Your task to perform on an android device: turn notification dots off Image 0: 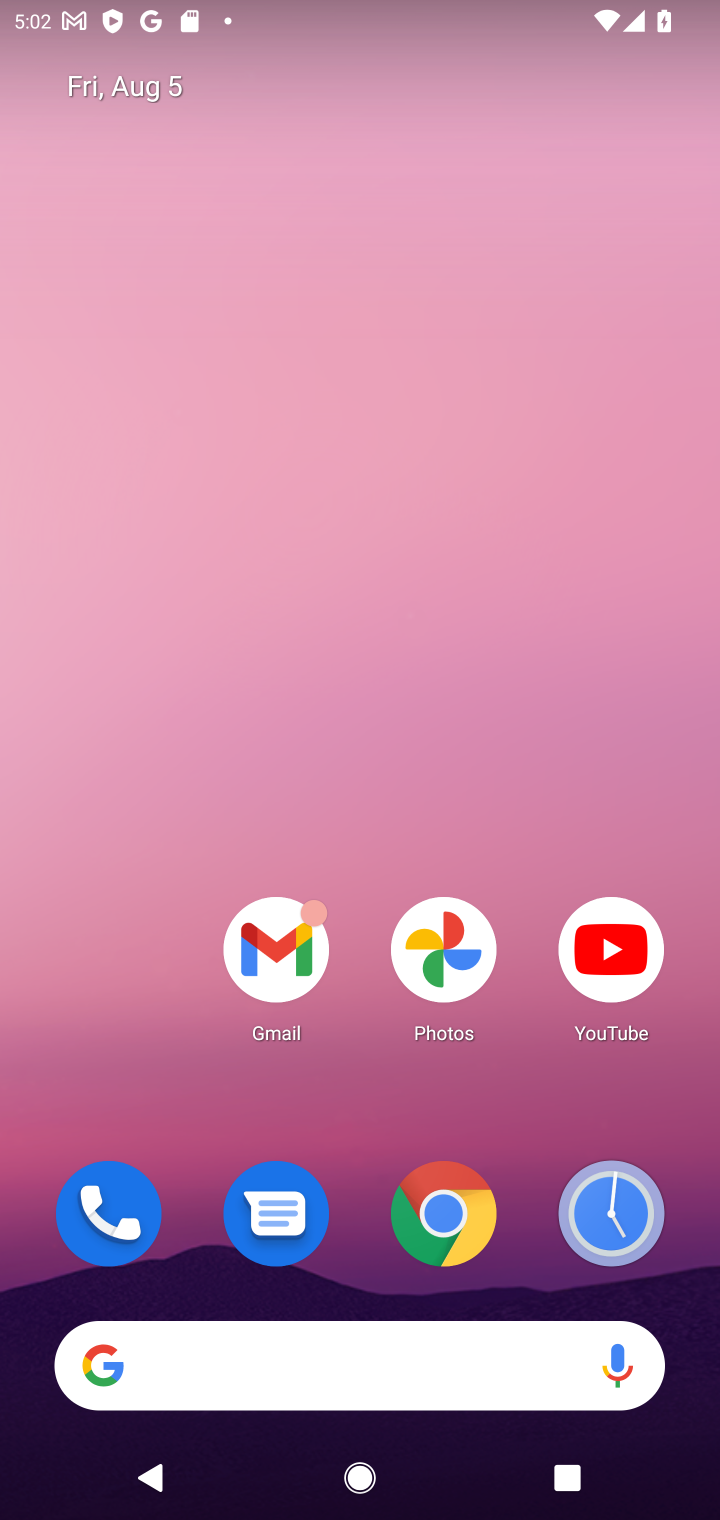
Step 0: drag from (354, 1124) to (340, 356)
Your task to perform on an android device: turn notification dots off Image 1: 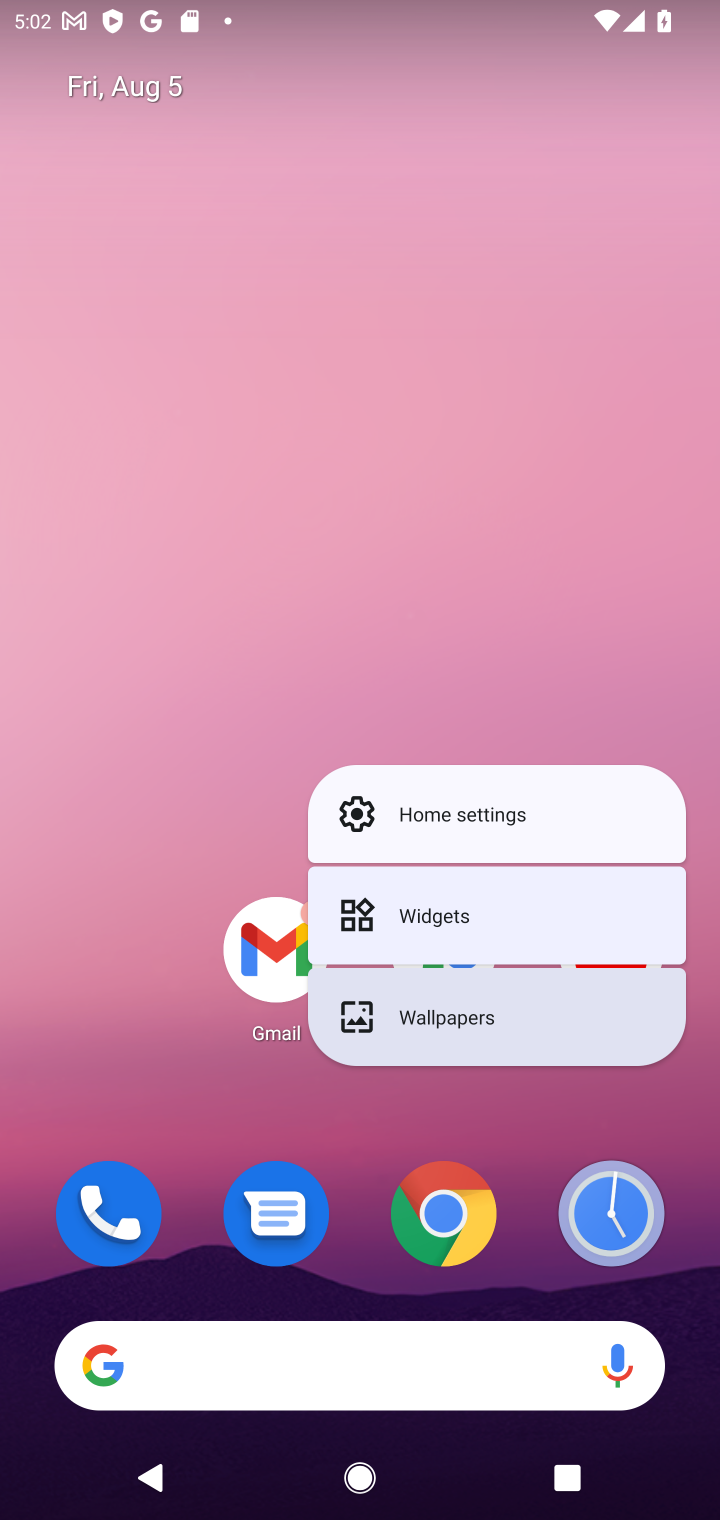
Step 1: click (360, 1285)
Your task to perform on an android device: turn notification dots off Image 2: 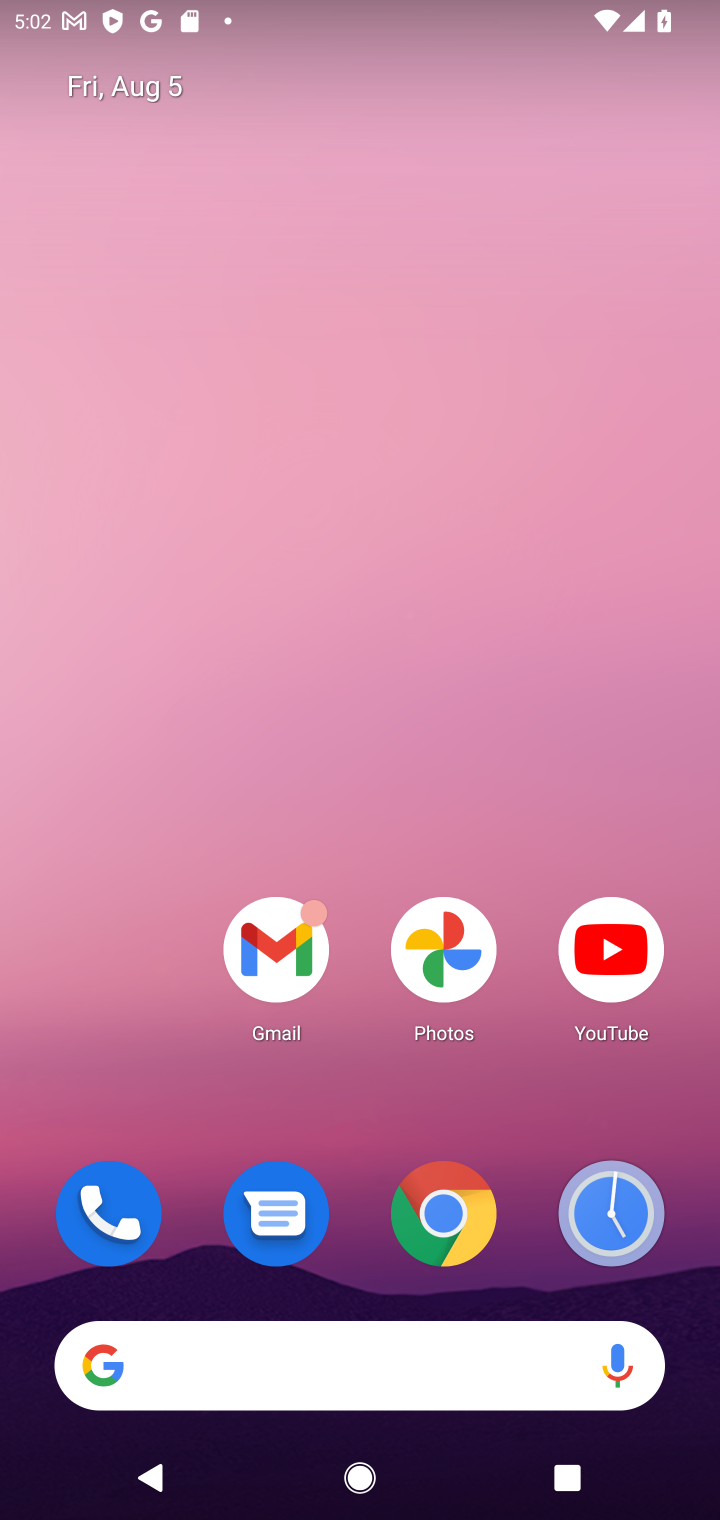
Step 2: drag from (360, 1285) to (435, 242)
Your task to perform on an android device: turn notification dots off Image 3: 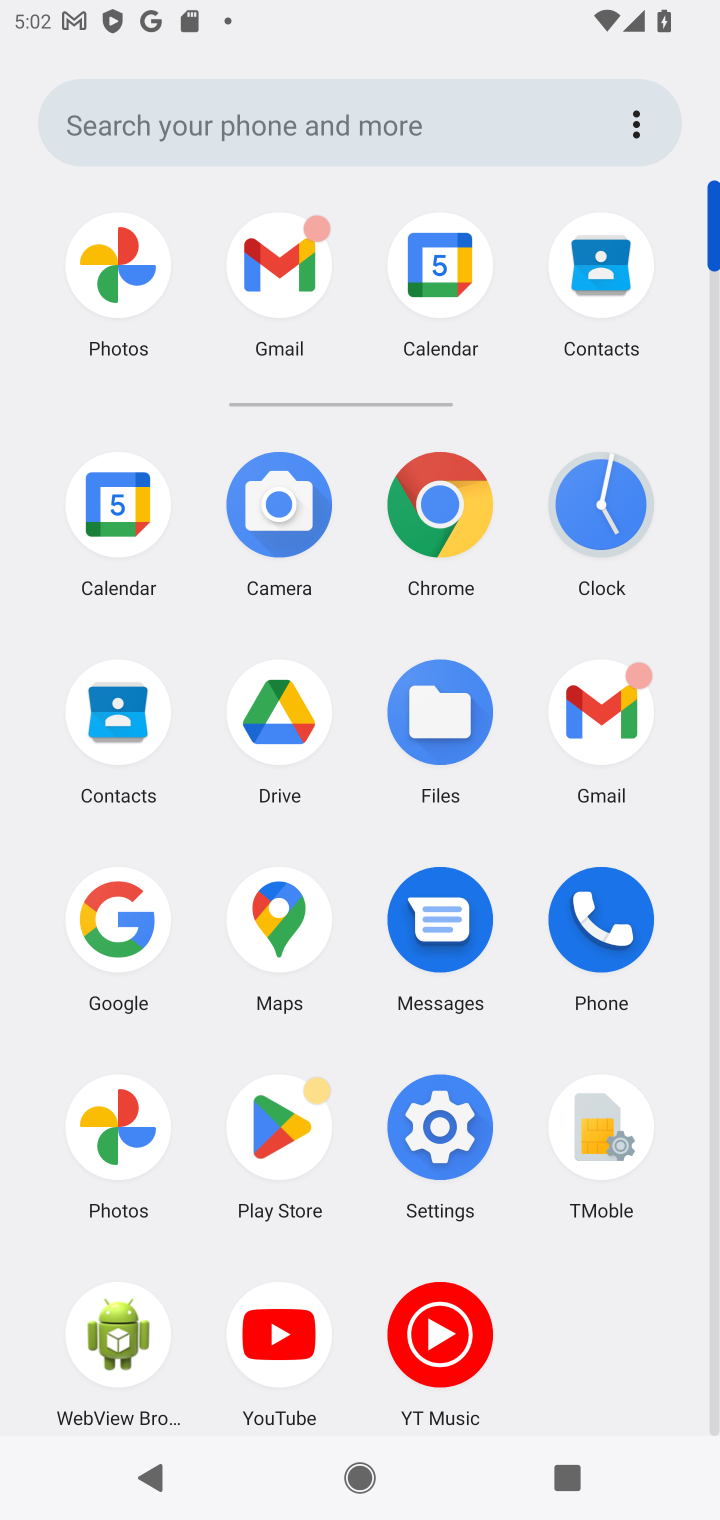
Step 3: click (467, 1183)
Your task to perform on an android device: turn notification dots off Image 4: 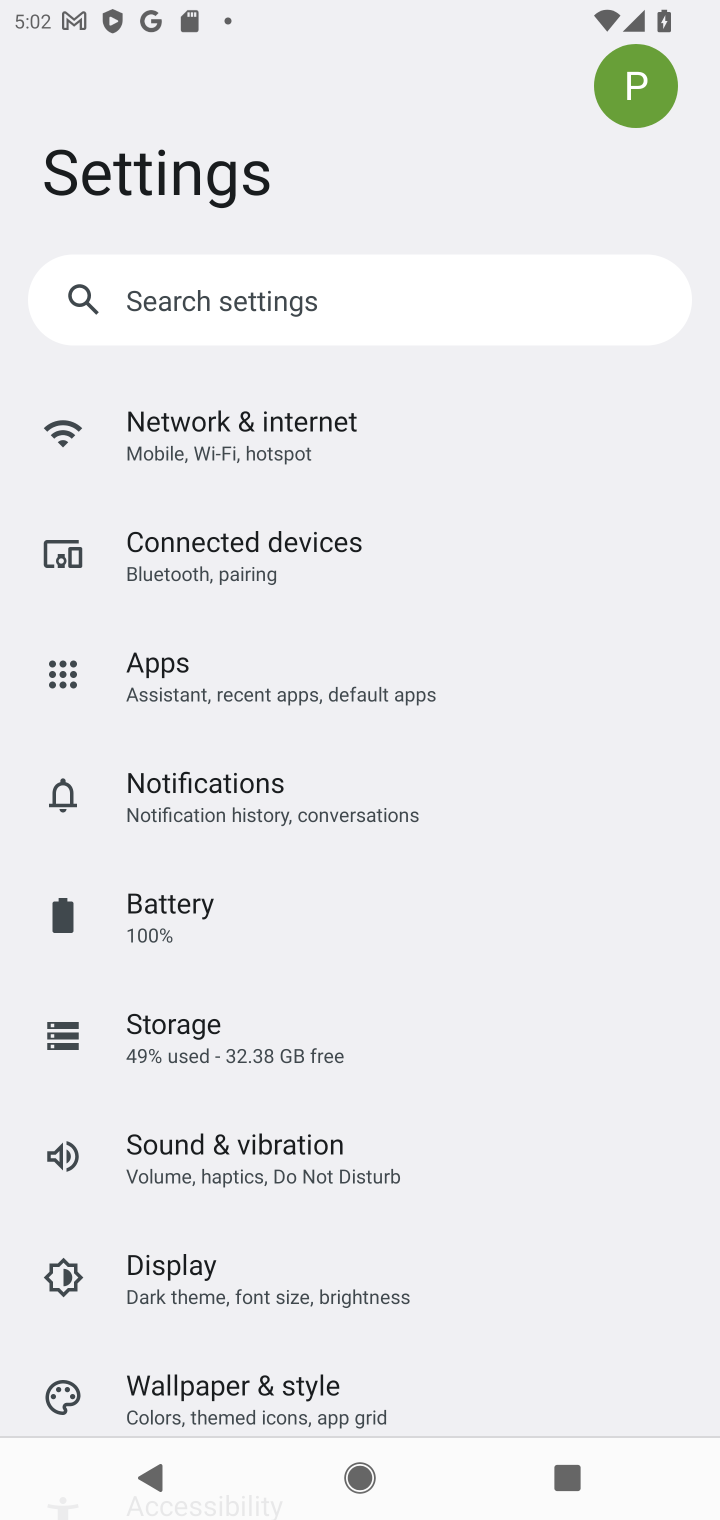
Step 4: click (283, 768)
Your task to perform on an android device: turn notification dots off Image 5: 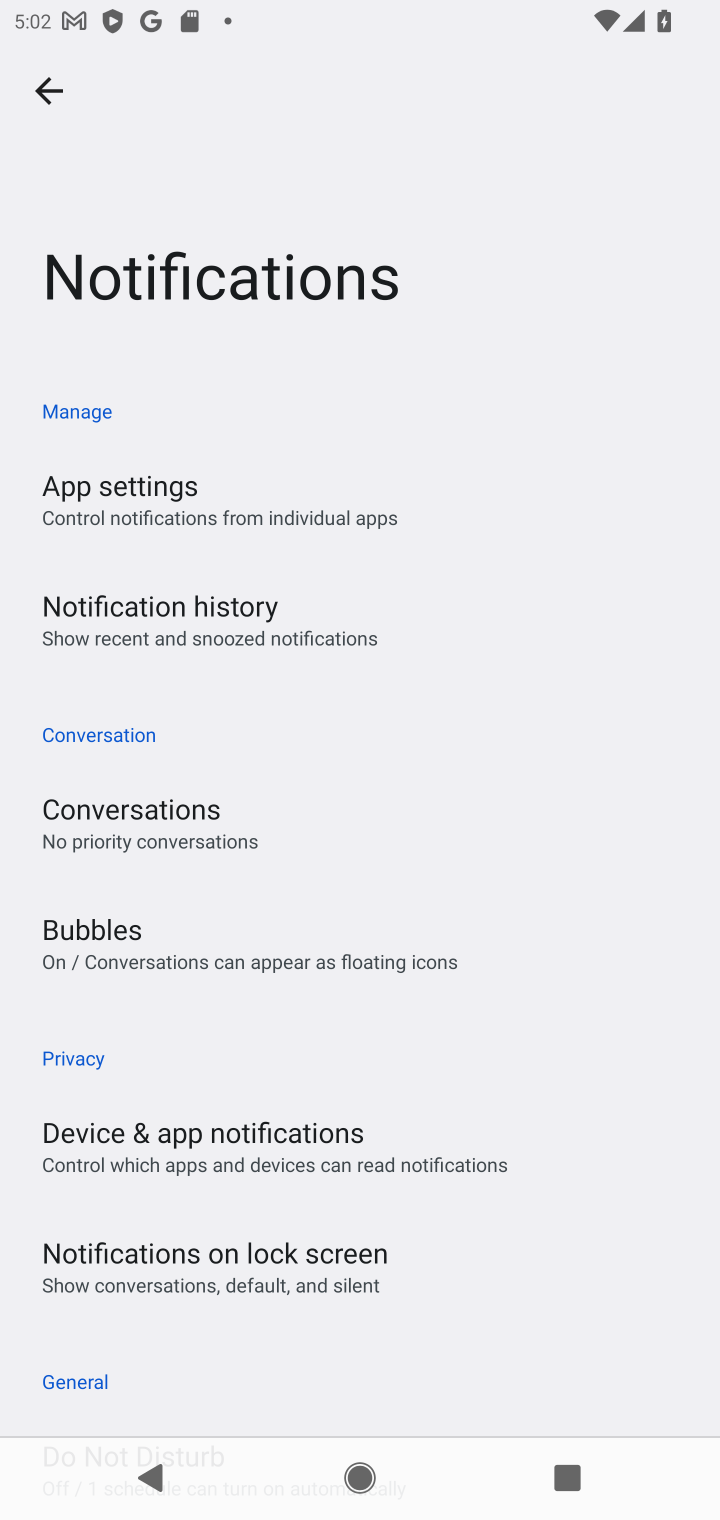
Step 5: task complete